Your task to perform on an android device: turn on bluetooth scan Image 0: 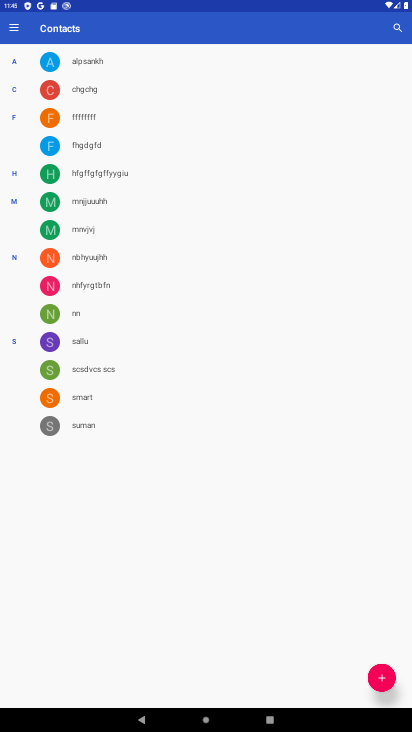
Step 0: press home button
Your task to perform on an android device: turn on bluetooth scan Image 1: 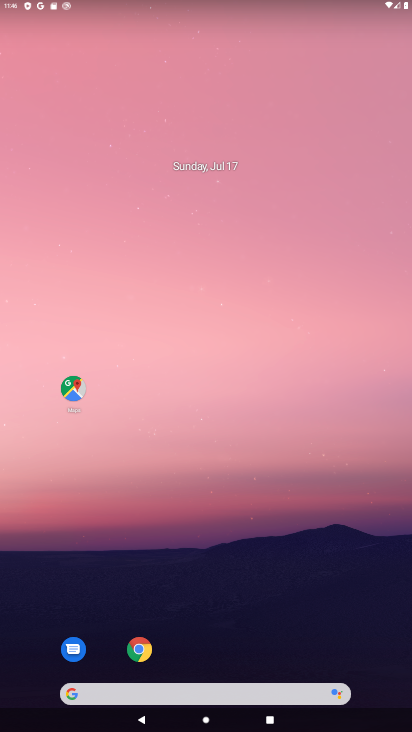
Step 1: drag from (223, 659) to (249, 285)
Your task to perform on an android device: turn on bluetooth scan Image 2: 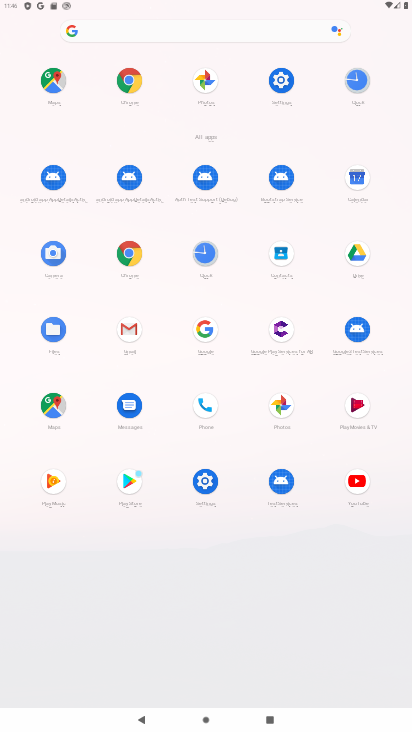
Step 2: click (298, 62)
Your task to perform on an android device: turn on bluetooth scan Image 3: 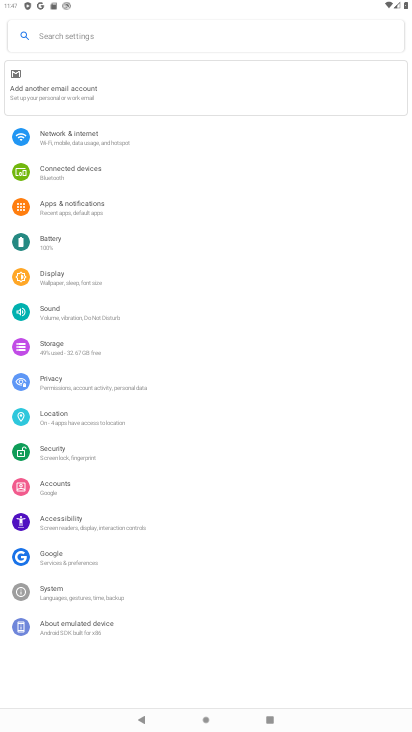
Step 3: click (56, 426)
Your task to perform on an android device: turn on bluetooth scan Image 4: 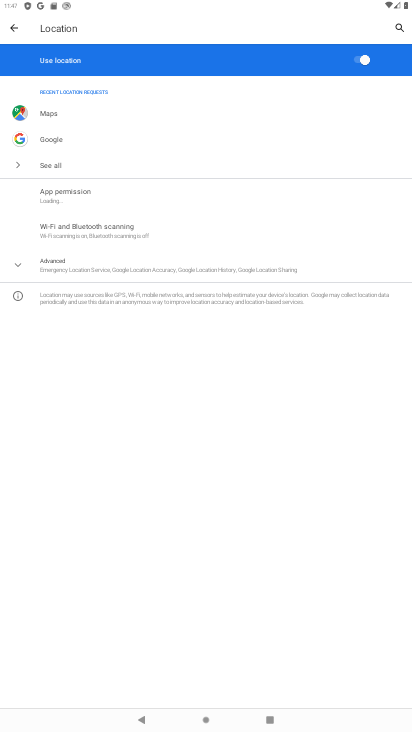
Step 4: task complete